Your task to perform on an android device: See recent photos Image 0: 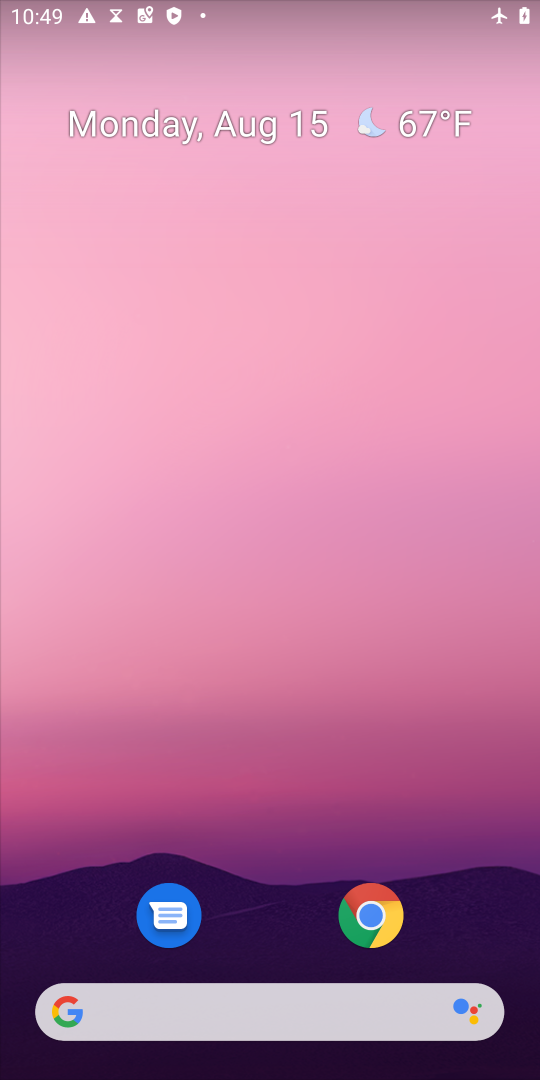
Step 0: drag from (276, 930) to (471, 125)
Your task to perform on an android device: See recent photos Image 1: 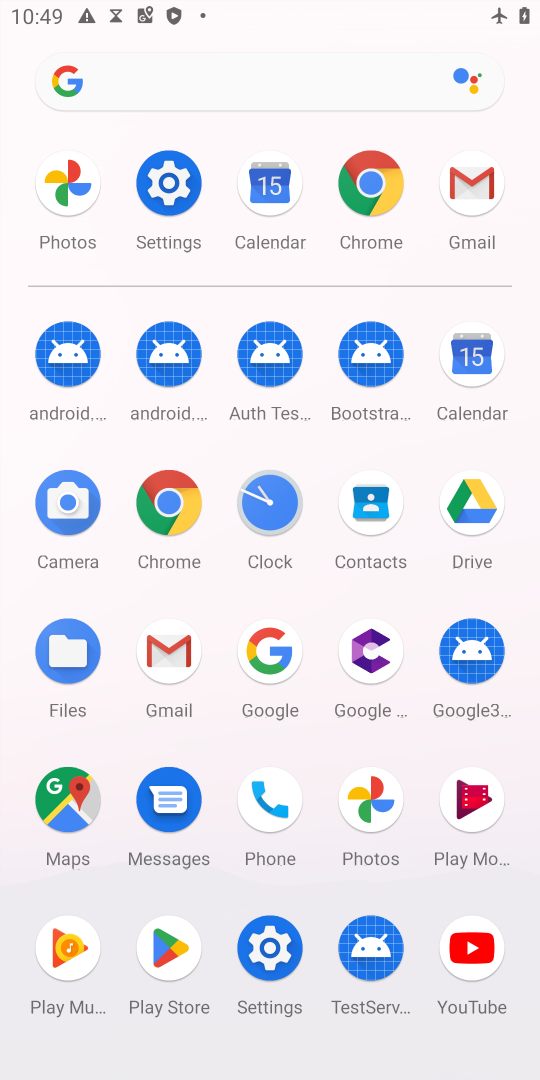
Step 1: click (64, 175)
Your task to perform on an android device: See recent photos Image 2: 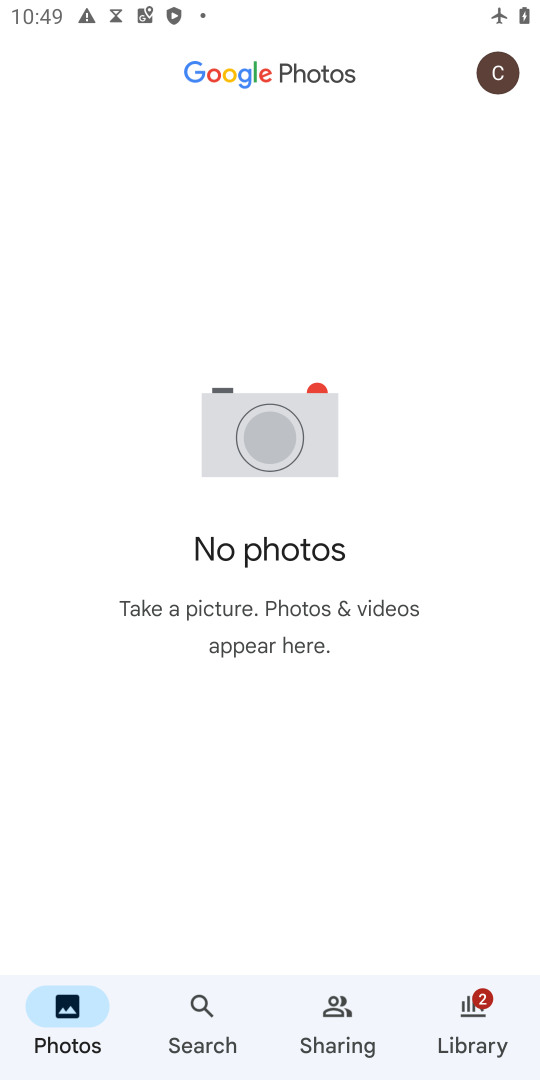
Step 2: task complete